Your task to perform on an android device: turn on translation in the chrome app Image 0: 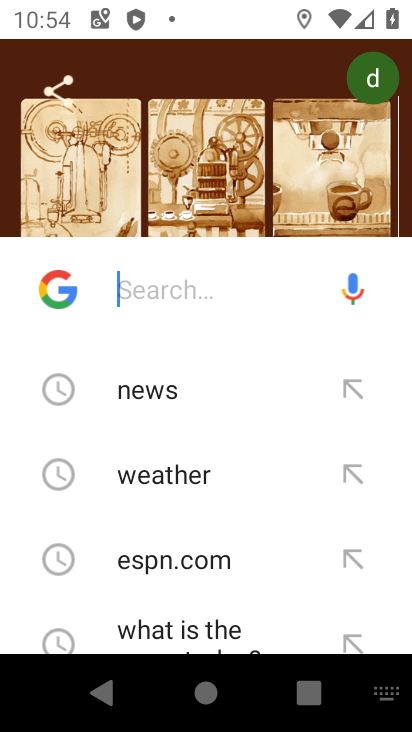
Step 0: press home button
Your task to perform on an android device: turn on translation in the chrome app Image 1: 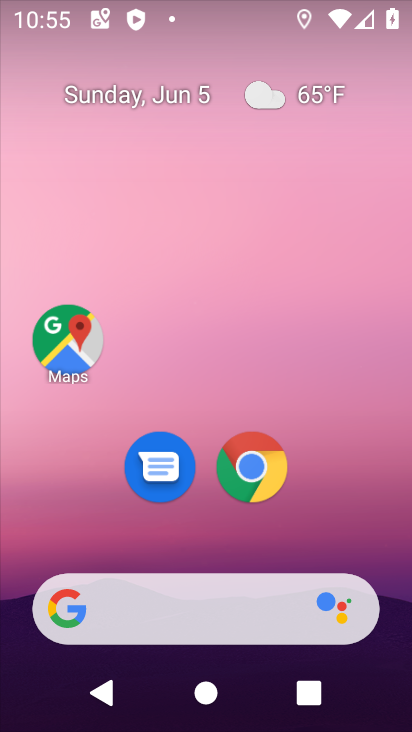
Step 1: drag from (267, 567) to (104, 601)
Your task to perform on an android device: turn on translation in the chrome app Image 2: 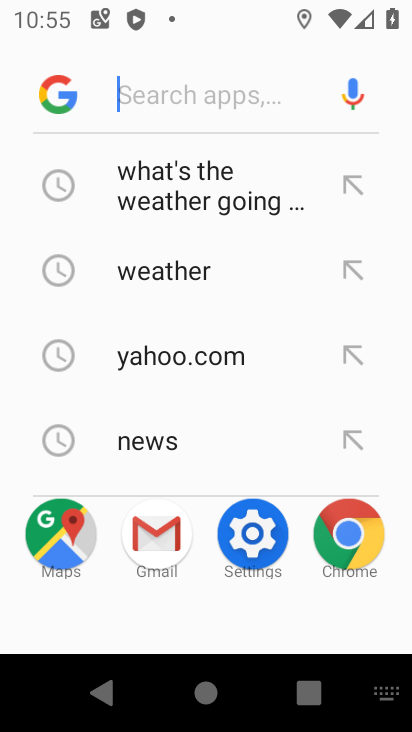
Step 2: press home button
Your task to perform on an android device: turn on translation in the chrome app Image 3: 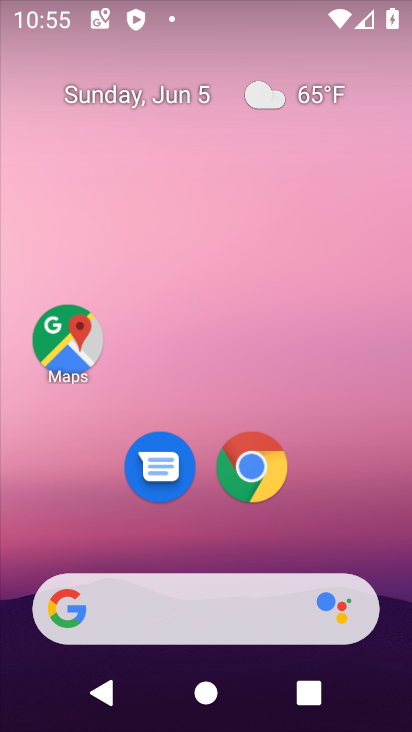
Step 3: click (217, 472)
Your task to perform on an android device: turn on translation in the chrome app Image 4: 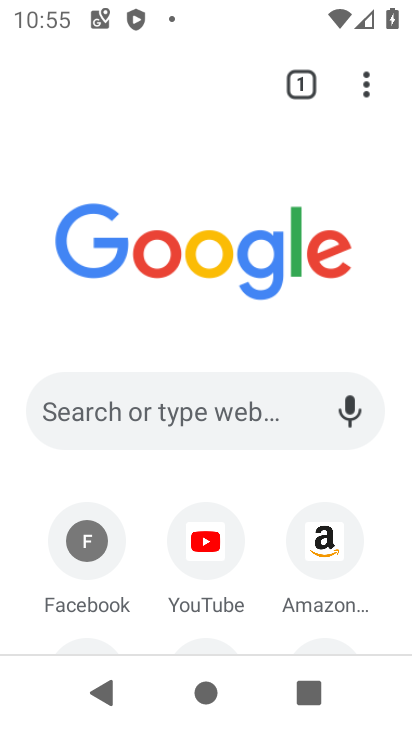
Step 4: drag from (367, 66) to (260, 521)
Your task to perform on an android device: turn on translation in the chrome app Image 5: 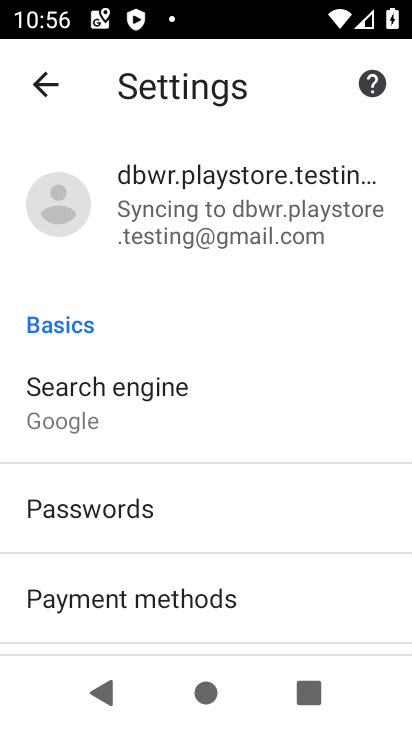
Step 5: drag from (379, 625) to (384, 198)
Your task to perform on an android device: turn on translation in the chrome app Image 6: 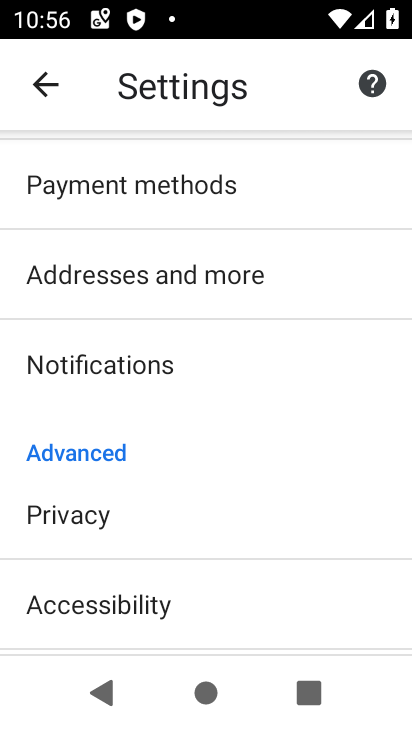
Step 6: drag from (310, 587) to (259, 140)
Your task to perform on an android device: turn on translation in the chrome app Image 7: 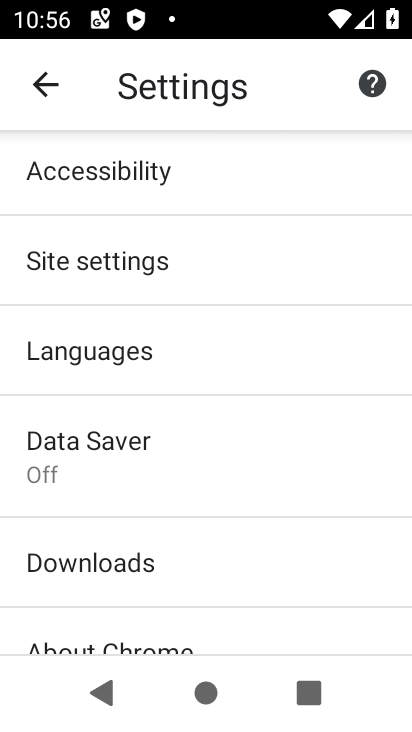
Step 7: click (153, 344)
Your task to perform on an android device: turn on translation in the chrome app Image 8: 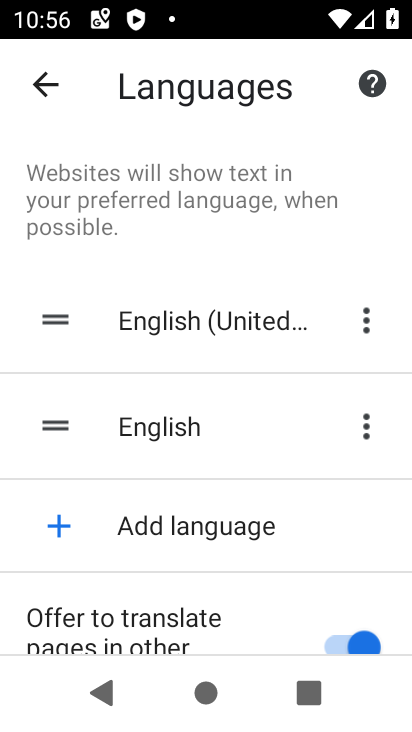
Step 8: task complete